Your task to perform on an android device: uninstall "Roku - Official Remote Control" Image 0: 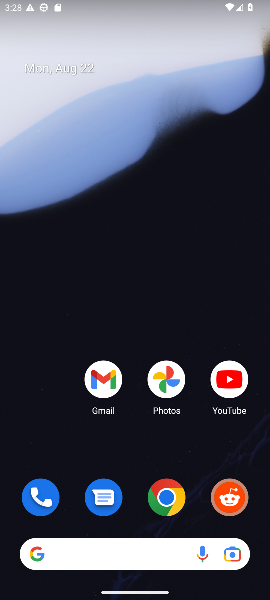
Step 0: drag from (131, 462) to (138, 57)
Your task to perform on an android device: uninstall "Roku - Official Remote Control" Image 1: 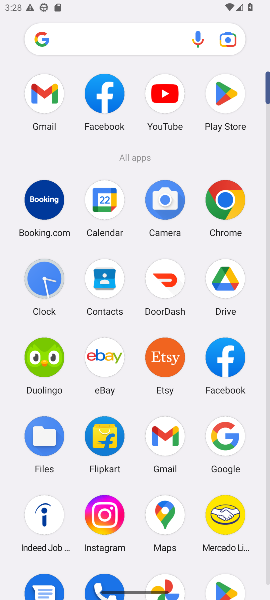
Step 1: click (212, 90)
Your task to perform on an android device: uninstall "Roku - Official Remote Control" Image 2: 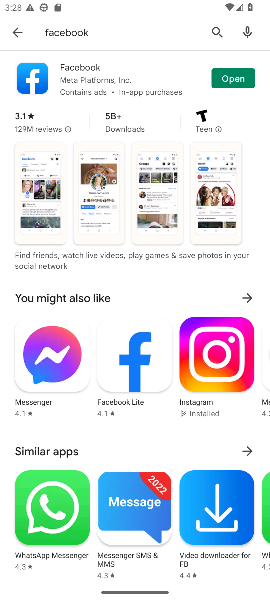
Step 2: click (218, 29)
Your task to perform on an android device: uninstall "Roku - Official Remote Control" Image 3: 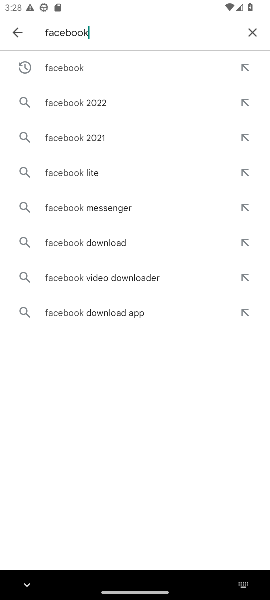
Step 3: click (253, 34)
Your task to perform on an android device: uninstall "Roku - Official Remote Control" Image 4: 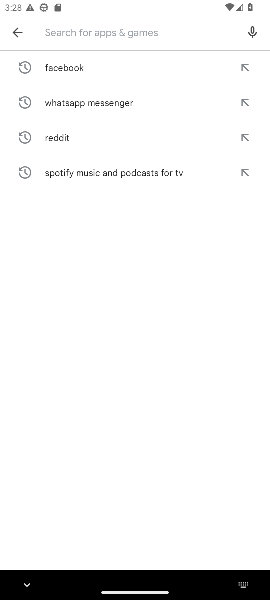
Step 4: type "Roku - Official Remote Control"
Your task to perform on an android device: uninstall "Roku - Official Remote Control" Image 5: 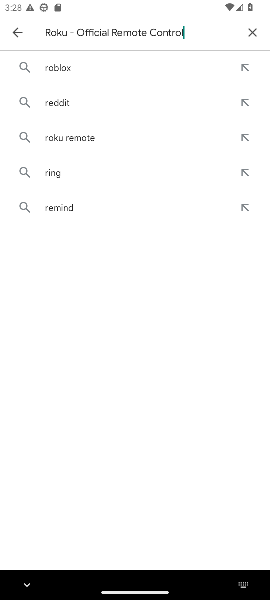
Step 5: type ""
Your task to perform on an android device: uninstall "Roku - Official Remote Control" Image 6: 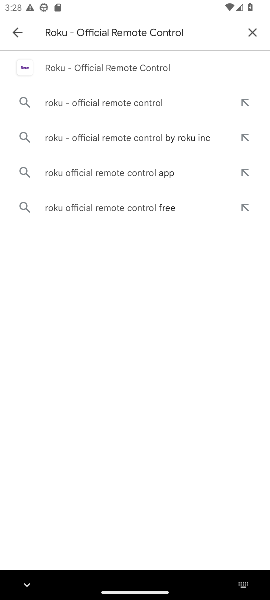
Step 6: click (126, 72)
Your task to perform on an android device: uninstall "Roku - Official Remote Control" Image 7: 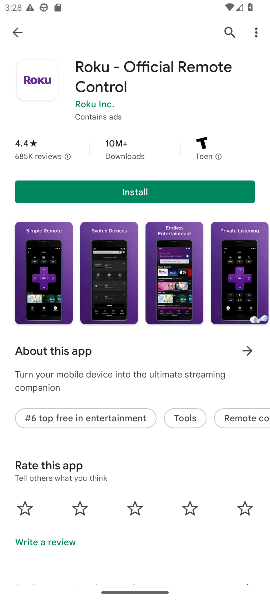
Step 7: task complete